Your task to perform on an android device: What is the recent news? Image 0: 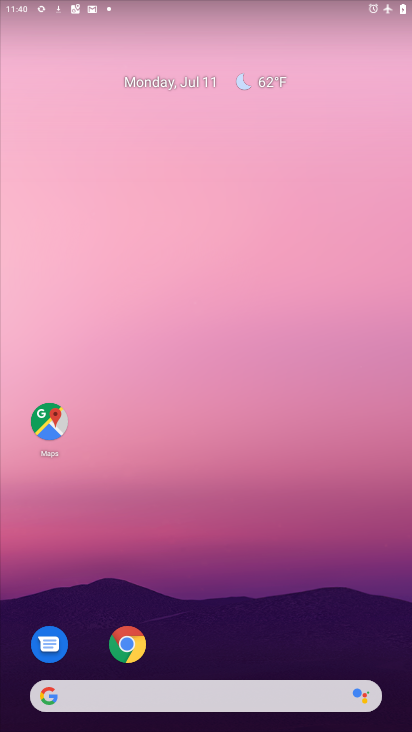
Step 0: drag from (33, 324) to (356, 312)
Your task to perform on an android device: What is the recent news? Image 1: 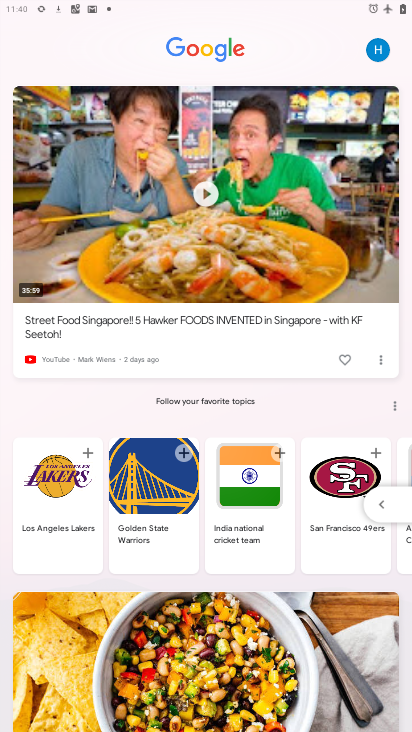
Step 1: task complete